Your task to perform on an android device: turn pop-ups on in chrome Image 0: 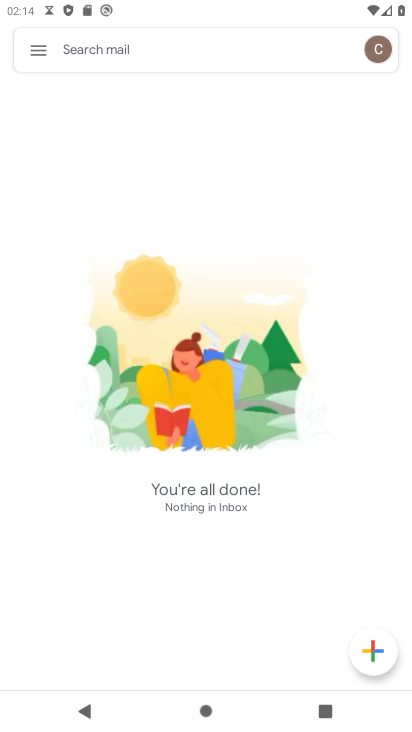
Step 0: press home button
Your task to perform on an android device: turn pop-ups on in chrome Image 1: 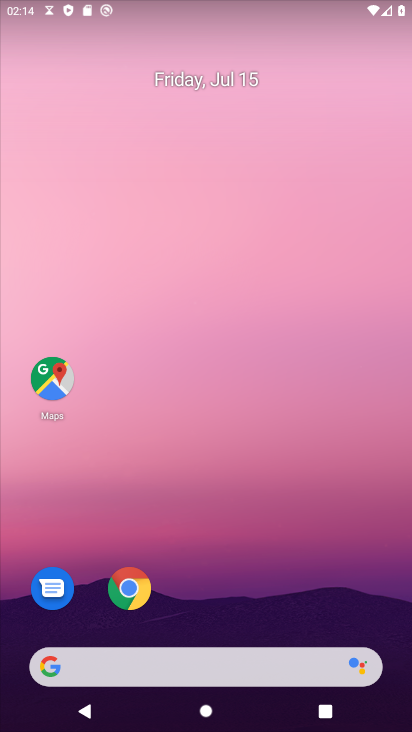
Step 1: drag from (254, 668) to (344, 220)
Your task to perform on an android device: turn pop-ups on in chrome Image 2: 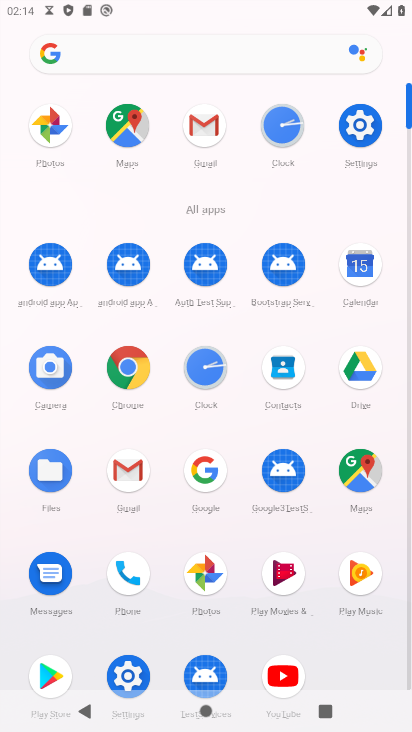
Step 2: click (136, 362)
Your task to perform on an android device: turn pop-ups on in chrome Image 3: 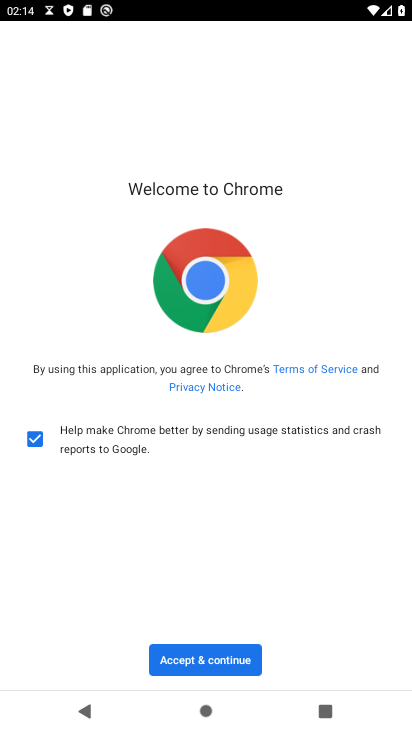
Step 3: click (217, 654)
Your task to perform on an android device: turn pop-ups on in chrome Image 4: 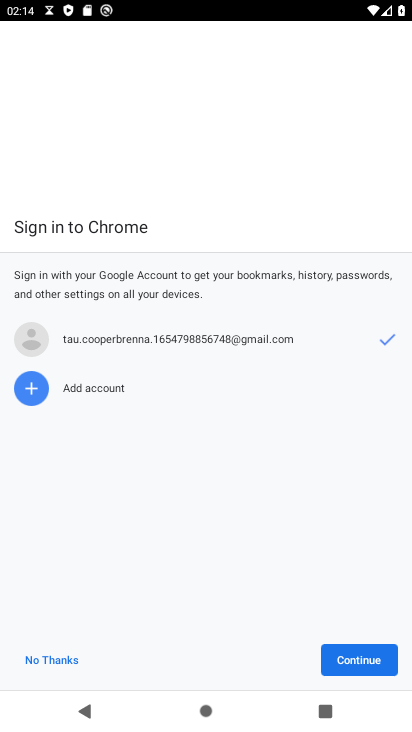
Step 4: click (353, 666)
Your task to perform on an android device: turn pop-ups on in chrome Image 5: 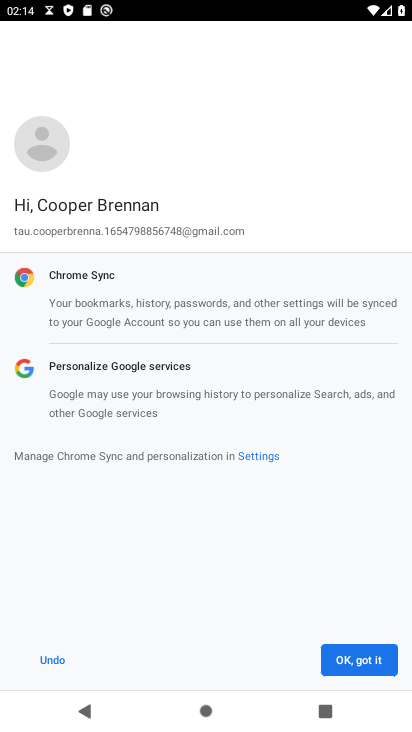
Step 5: click (353, 666)
Your task to perform on an android device: turn pop-ups on in chrome Image 6: 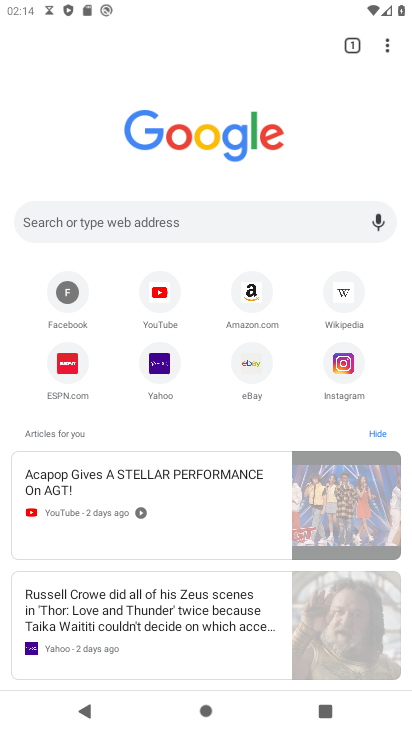
Step 6: drag from (392, 42) to (254, 388)
Your task to perform on an android device: turn pop-ups on in chrome Image 7: 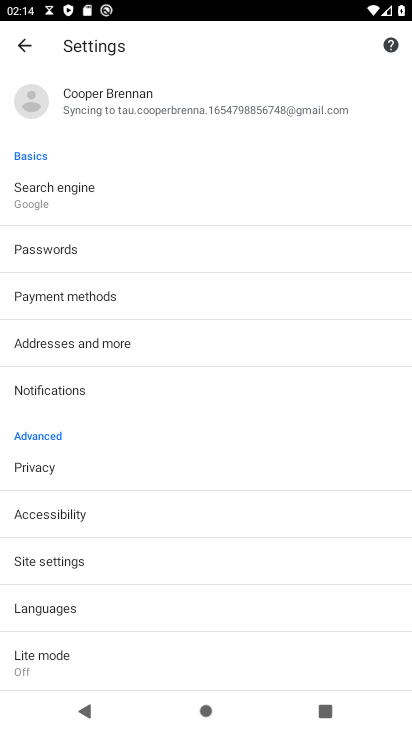
Step 7: click (61, 557)
Your task to perform on an android device: turn pop-ups on in chrome Image 8: 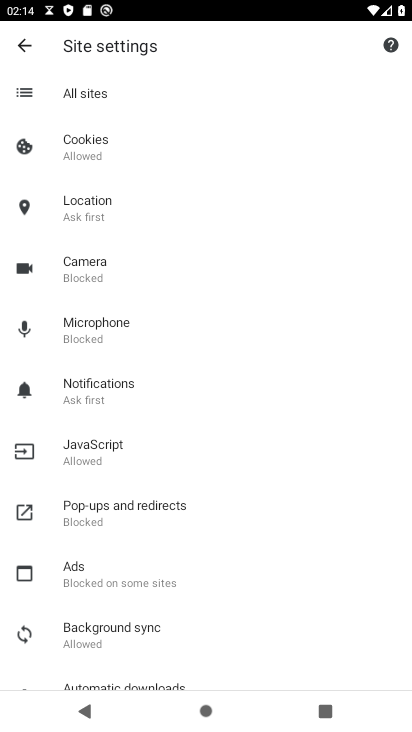
Step 8: click (106, 508)
Your task to perform on an android device: turn pop-ups on in chrome Image 9: 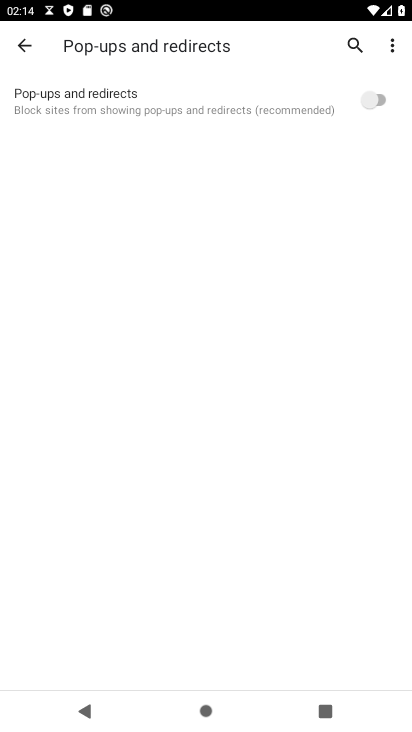
Step 9: click (381, 100)
Your task to perform on an android device: turn pop-ups on in chrome Image 10: 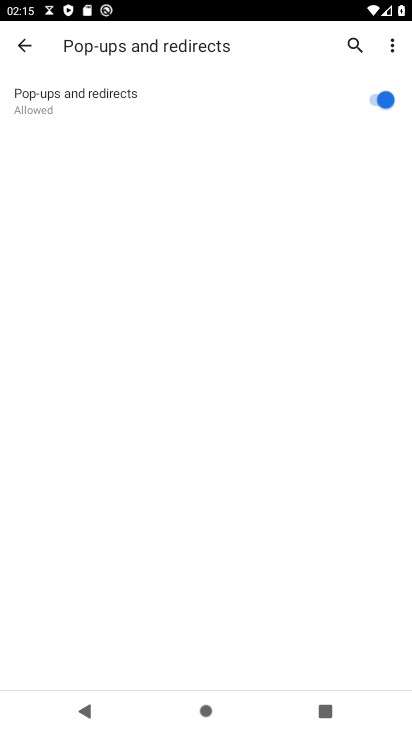
Step 10: task complete